Your task to perform on an android device: change notification settings in the gmail app Image 0: 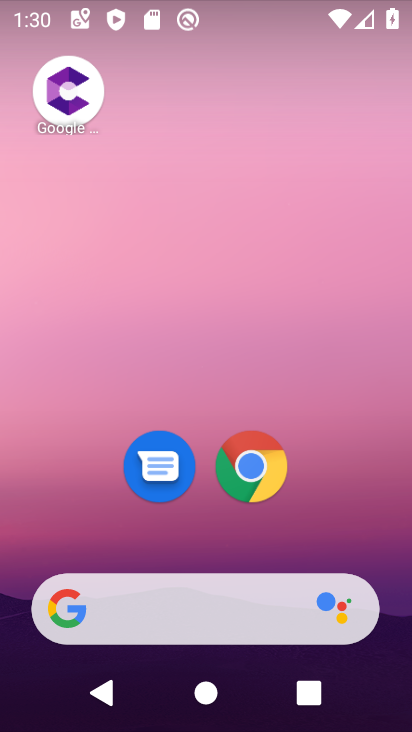
Step 0: drag from (203, 537) to (249, 239)
Your task to perform on an android device: change notification settings in the gmail app Image 1: 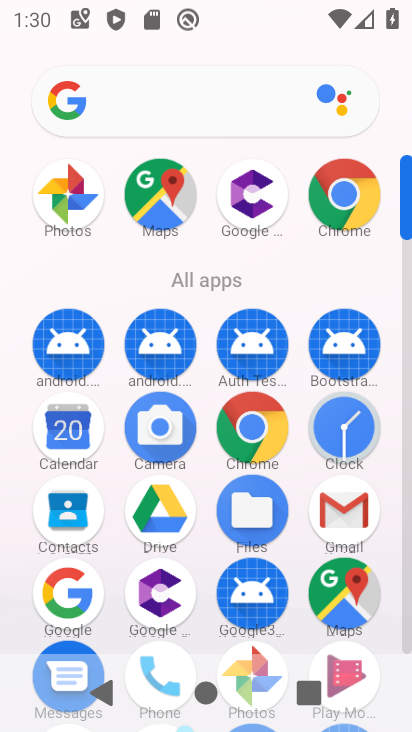
Step 1: click (341, 505)
Your task to perform on an android device: change notification settings in the gmail app Image 2: 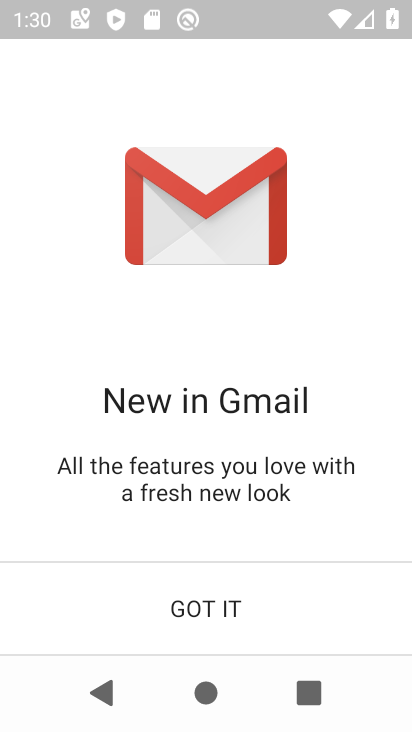
Step 2: click (199, 597)
Your task to perform on an android device: change notification settings in the gmail app Image 3: 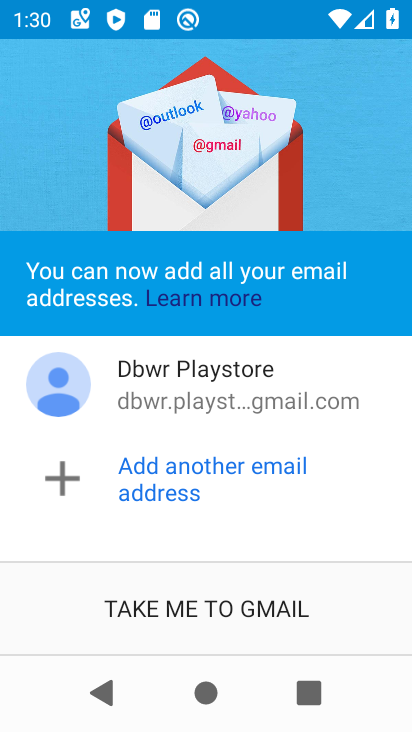
Step 3: click (208, 627)
Your task to perform on an android device: change notification settings in the gmail app Image 4: 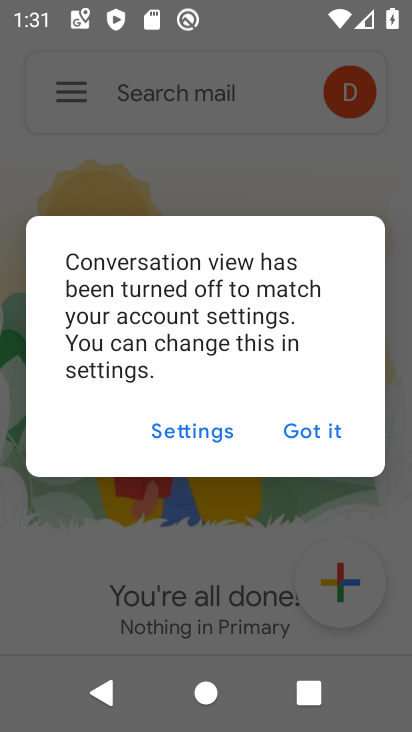
Step 4: click (303, 420)
Your task to perform on an android device: change notification settings in the gmail app Image 5: 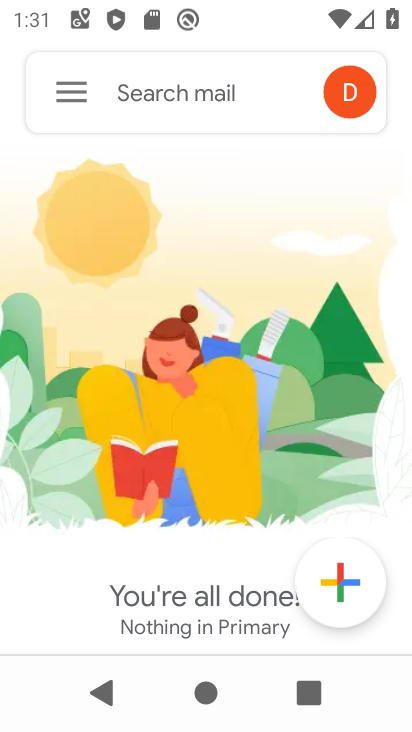
Step 5: click (72, 101)
Your task to perform on an android device: change notification settings in the gmail app Image 6: 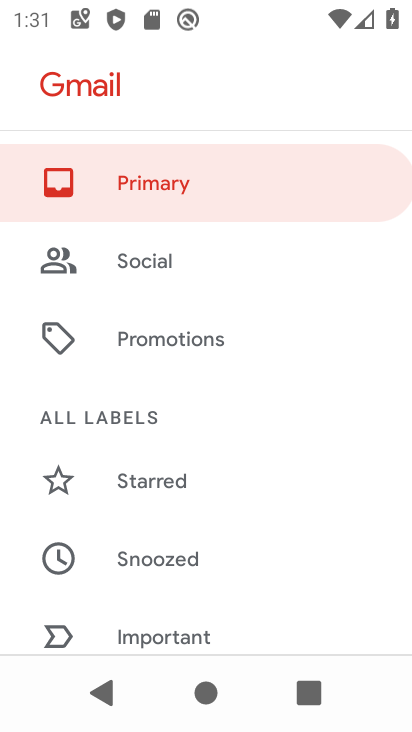
Step 6: drag from (216, 466) to (163, 153)
Your task to perform on an android device: change notification settings in the gmail app Image 7: 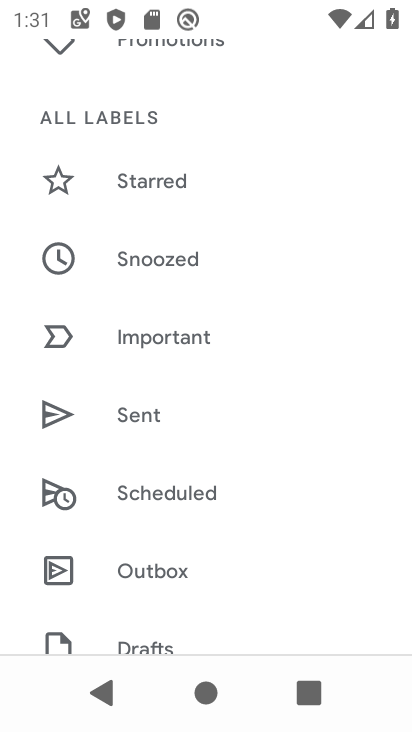
Step 7: drag from (267, 456) to (310, 15)
Your task to perform on an android device: change notification settings in the gmail app Image 8: 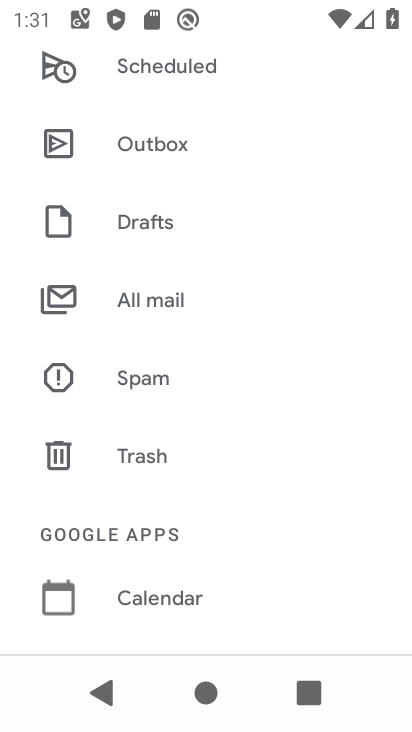
Step 8: drag from (251, 527) to (186, 49)
Your task to perform on an android device: change notification settings in the gmail app Image 9: 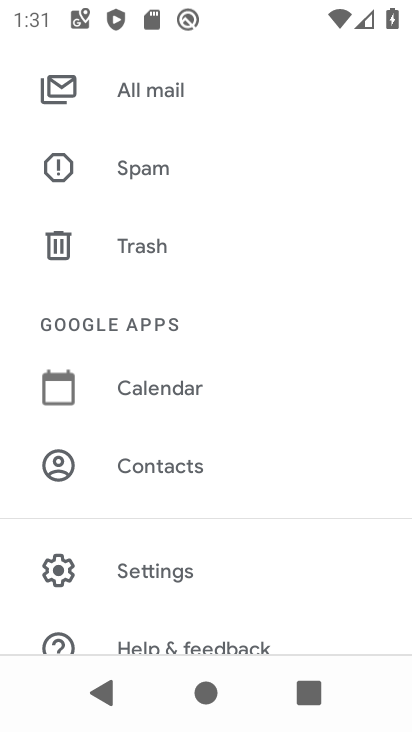
Step 9: click (121, 513)
Your task to perform on an android device: change notification settings in the gmail app Image 10: 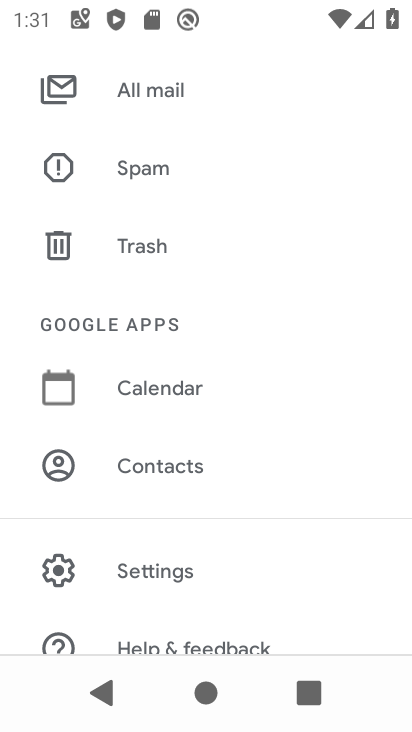
Step 10: click (107, 544)
Your task to perform on an android device: change notification settings in the gmail app Image 11: 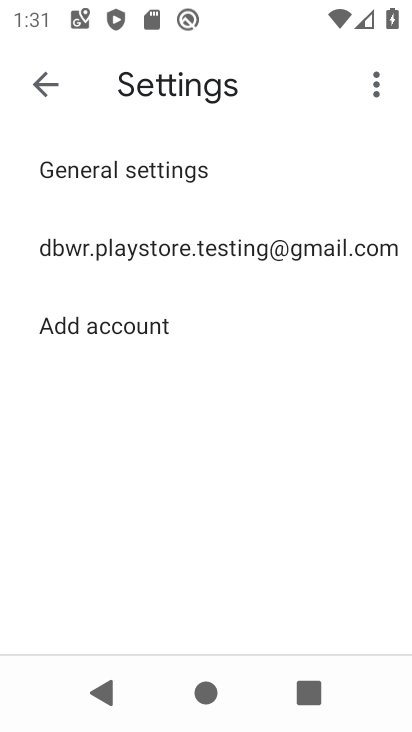
Step 11: click (128, 176)
Your task to perform on an android device: change notification settings in the gmail app Image 12: 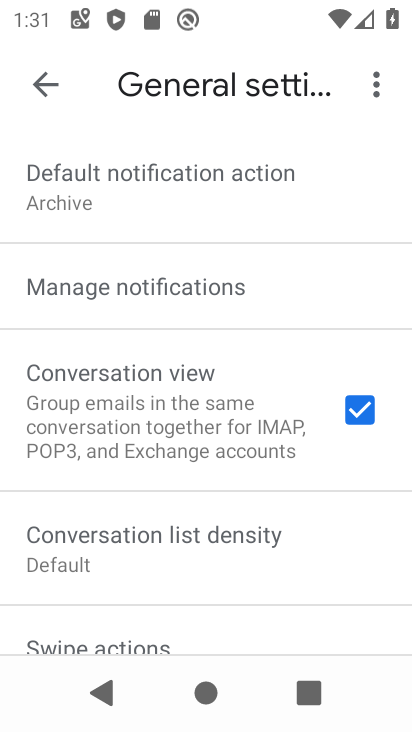
Step 12: click (131, 278)
Your task to perform on an android device: change notification settings in the gmail app Image 13: 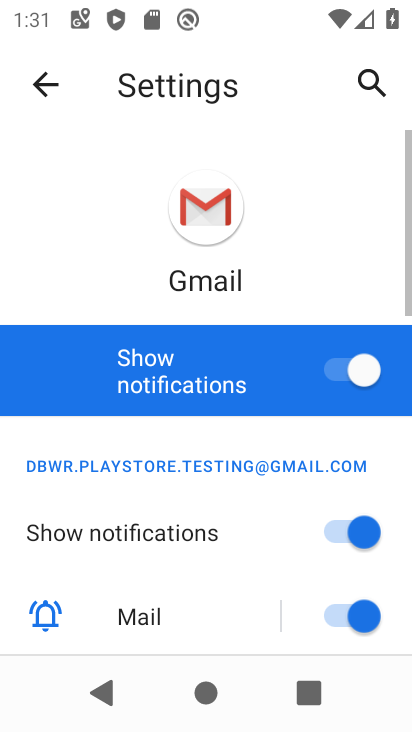
Step 13: click (352, 364)
Your task to perform on an android device: change notification settings in the gmail app Image 14: 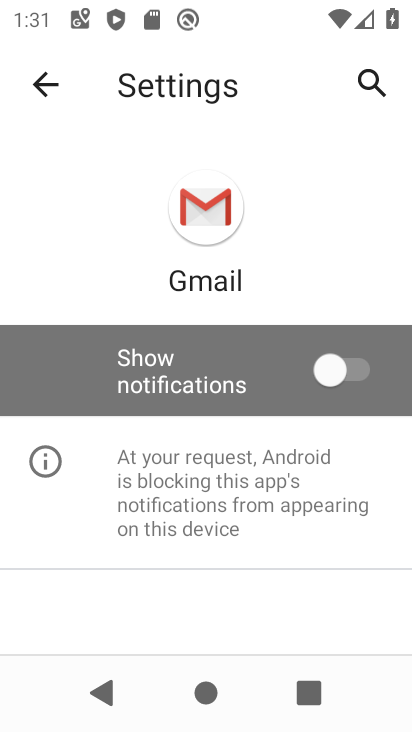
Step 14: task complete